Your task to perform on an android device: Open settings on Google Maps Image 0: 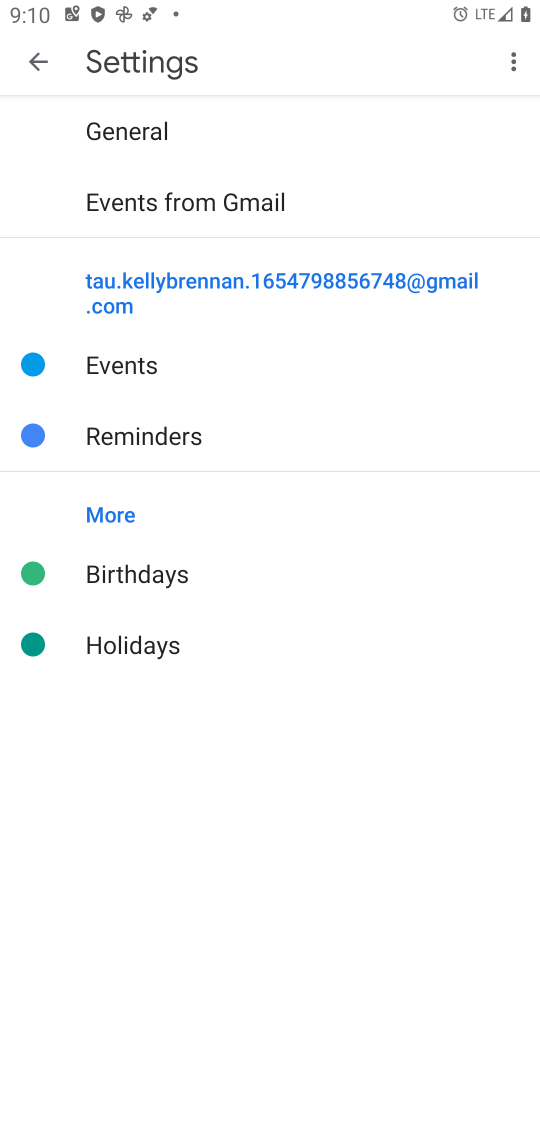
Step 0: press home button
Your task to perform on an android device: Open settings on Google Maps Image 1: 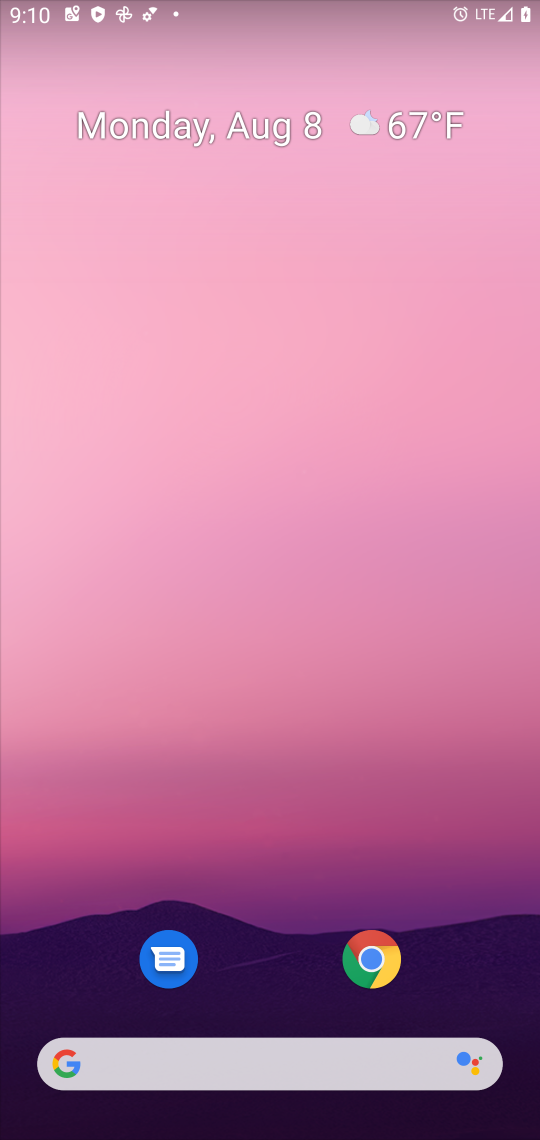
Step 1: drag from (462, 980) to (241, 6)
Your task to perform on an android device: Open settings on Google Maps Image 2: 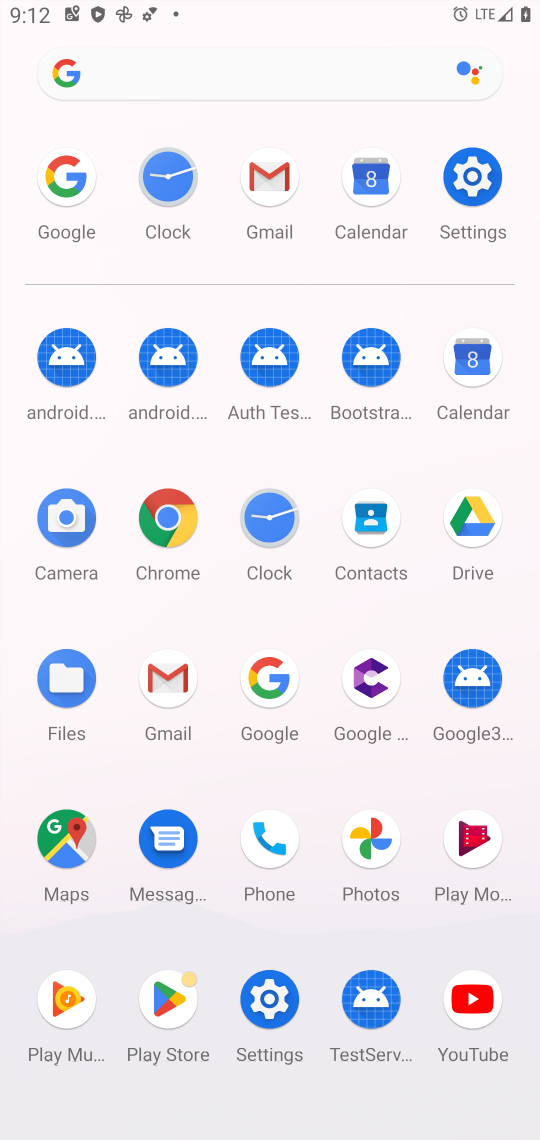
Step 2: click (44, 844)
Your task to perform on an android device: Open settings on Google Maps Image 3: 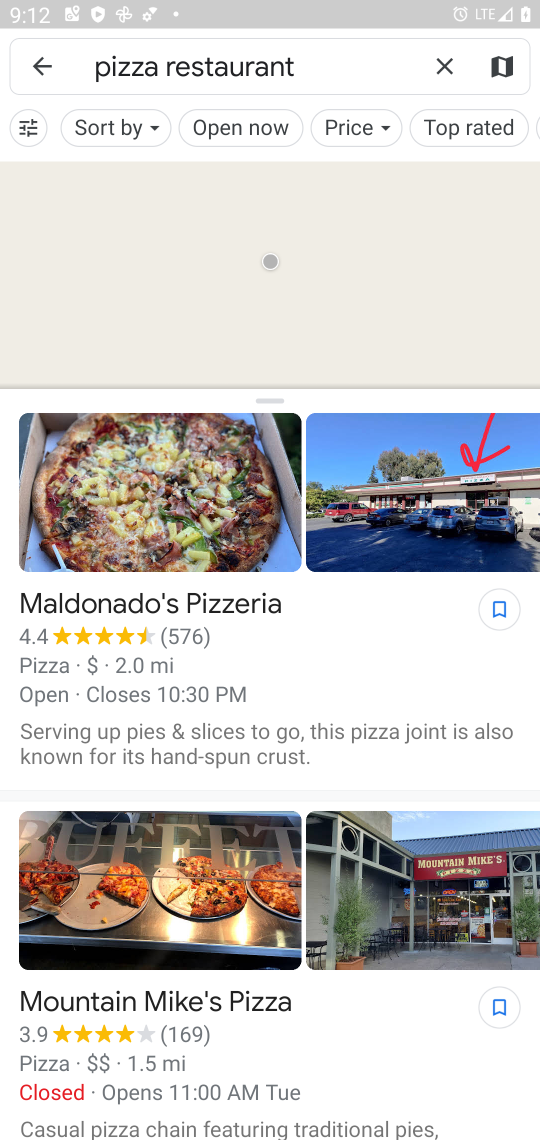
Step 3: click (448, 67)
Your task to perform on an android device: Open settings on Google Maps Image 4: 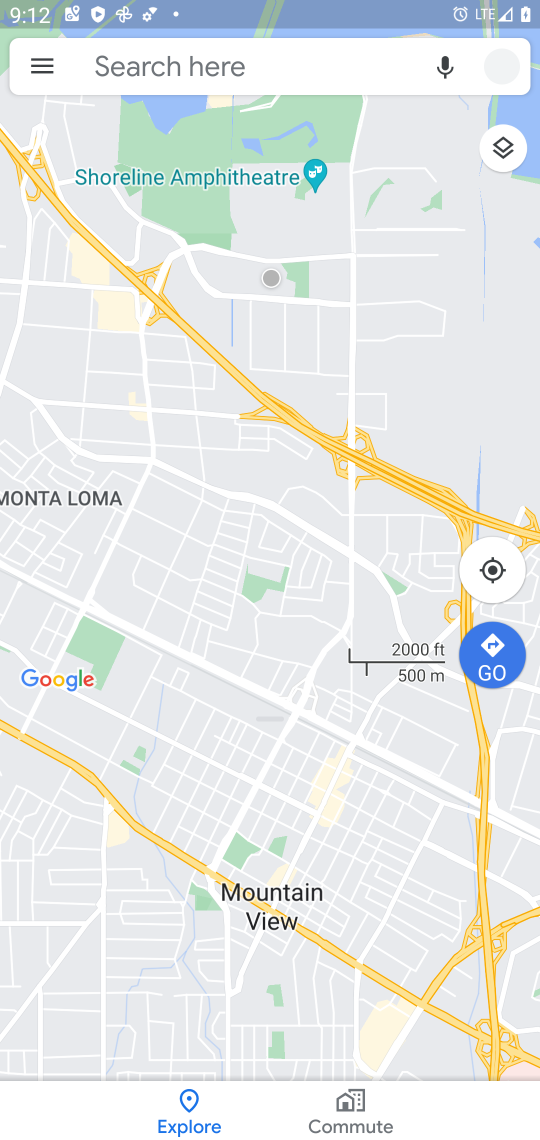
Step 4: click (37, 69)
Your task to perform on an android device: Open settings on Google Maps Image 5: 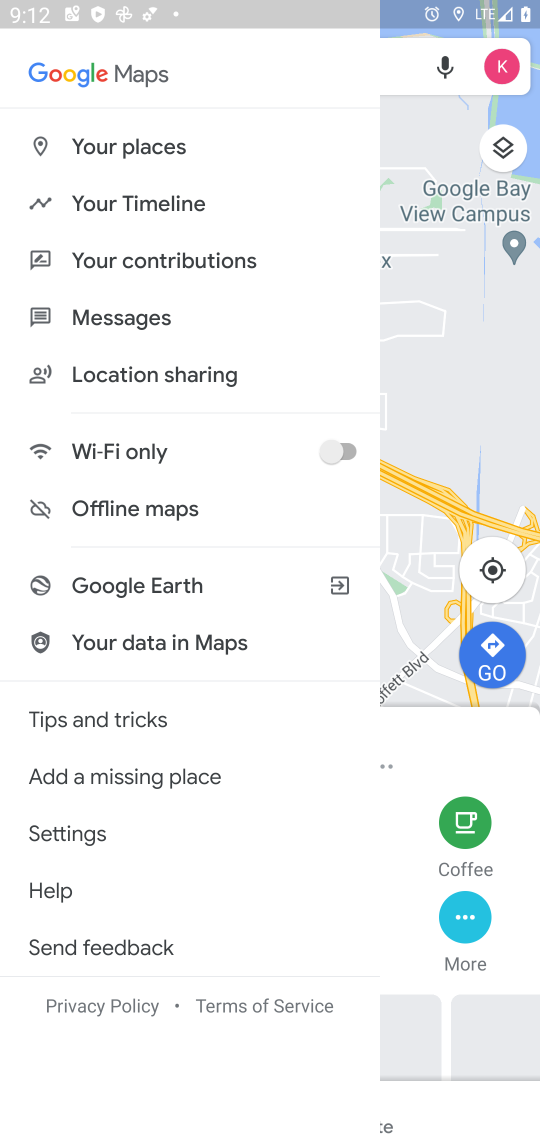
Step 5: click (79, 844)
Your task to perform on an android device: Open settings on Google Maps Image 6: 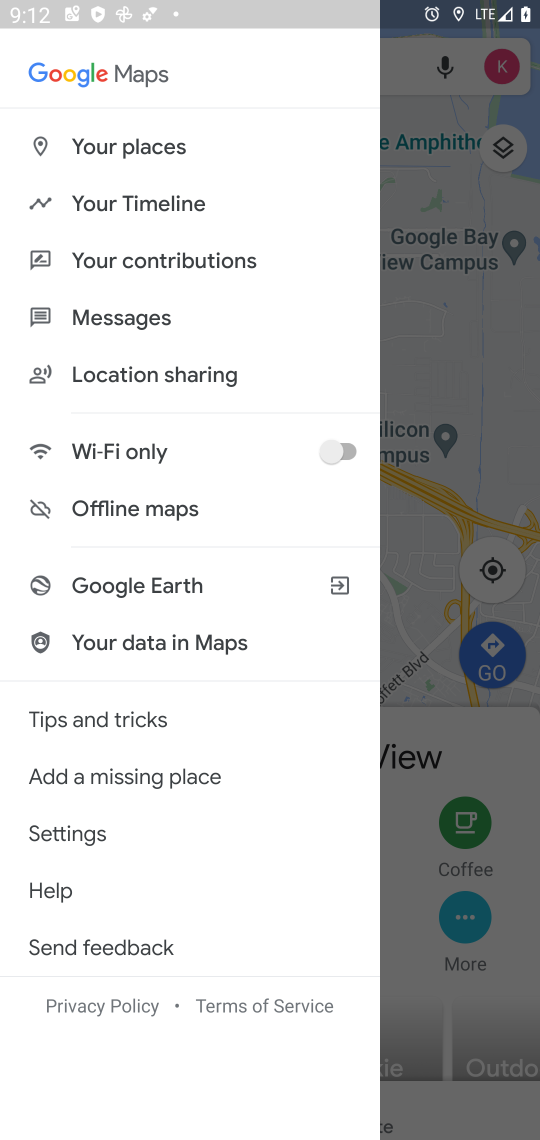
Step 6: click (77, 834)
Your task to perform on an android device: Open settings on Google Maps Image 7: 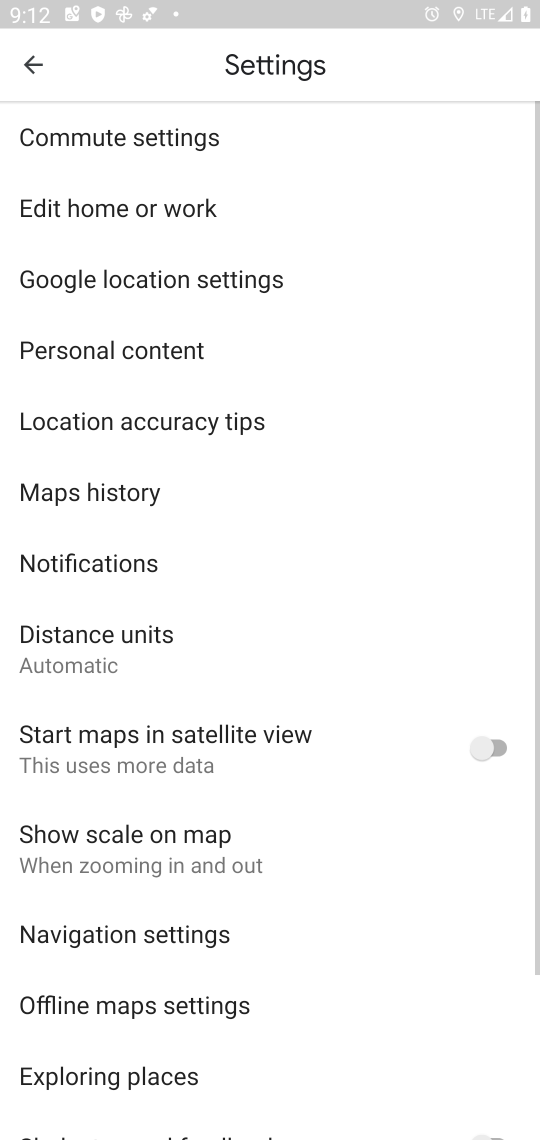
Step 7: task complete